Your task to perform on an android device: Go to privacy settings Image 0: 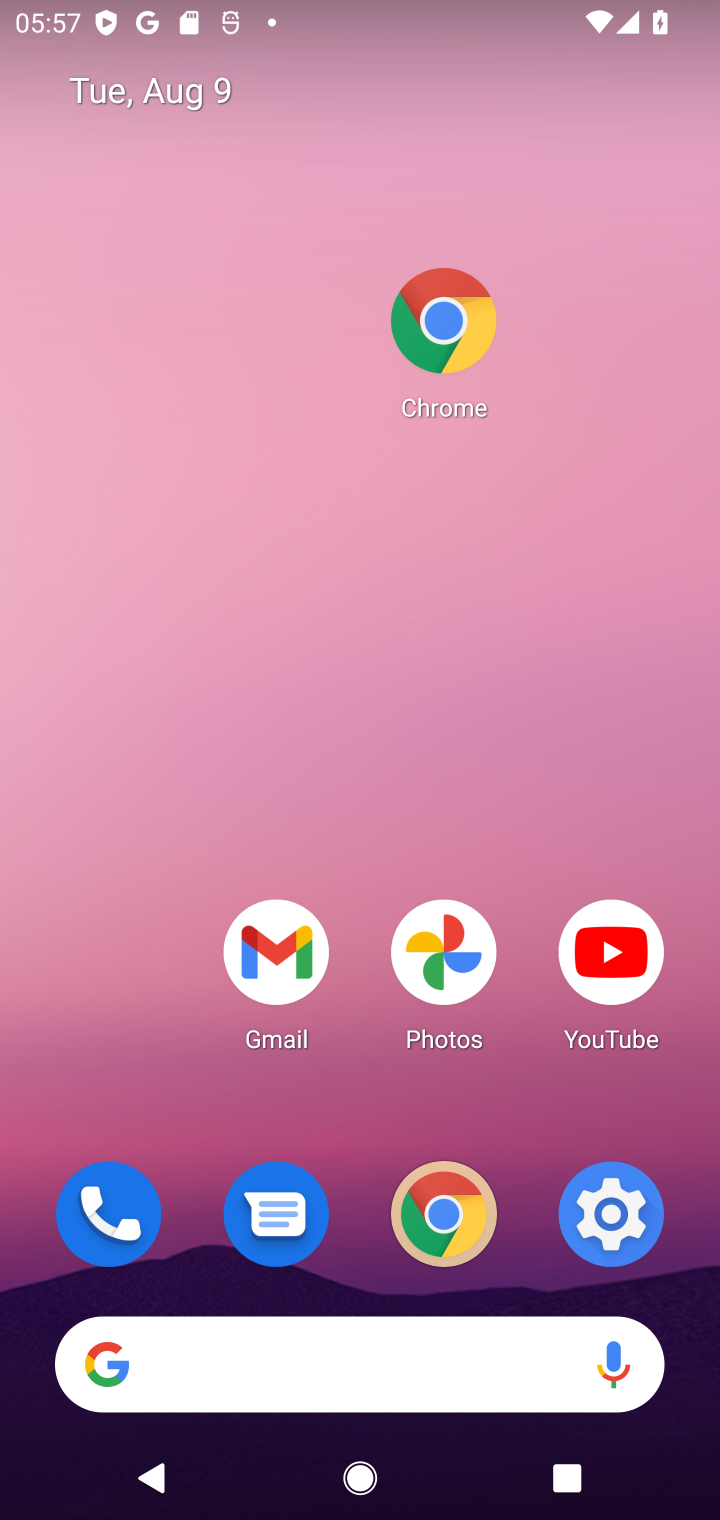
Step 0: press home button
Your task to perform on an android device: Go to privacy settings Image 1: 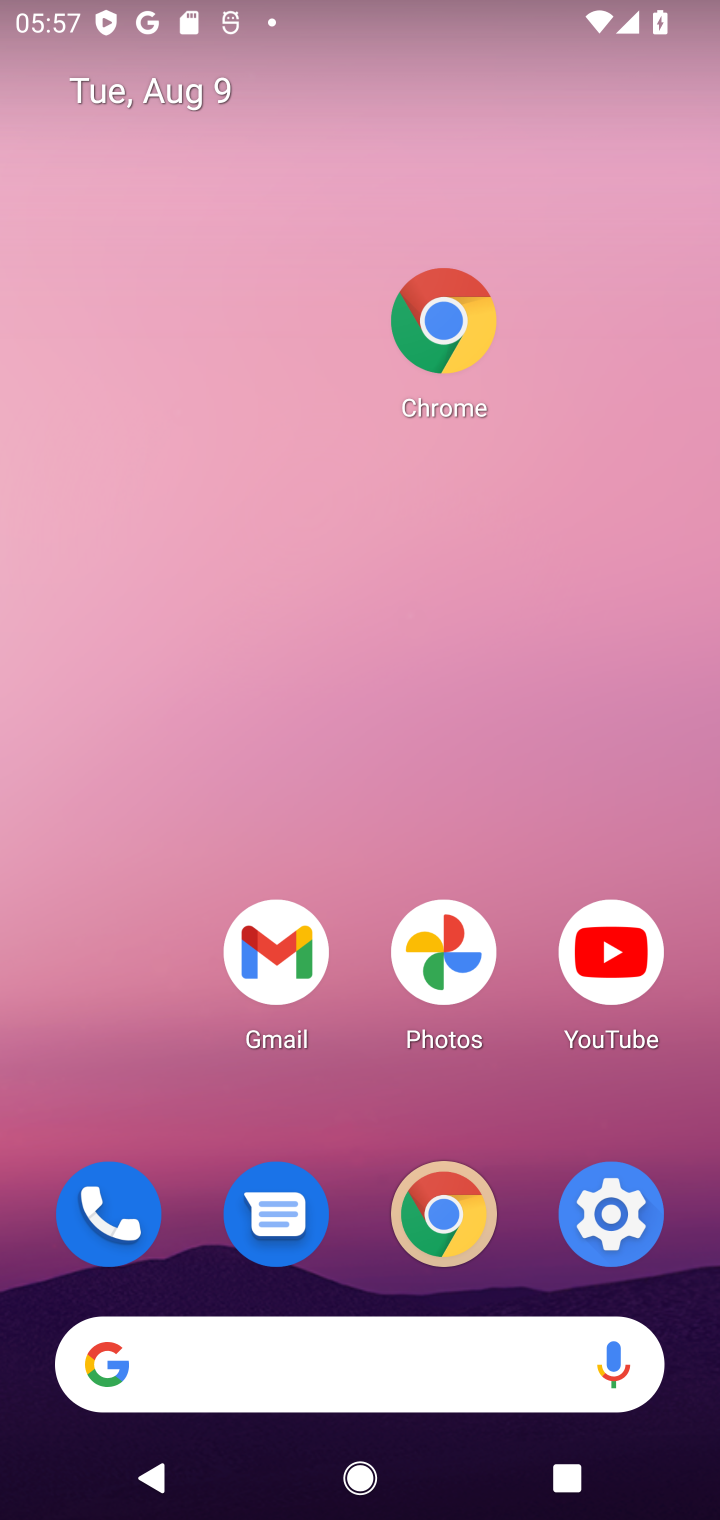
Step 1: click (607, 1179)
Your task to perform on an android device: Go to privacy settings Image 2: 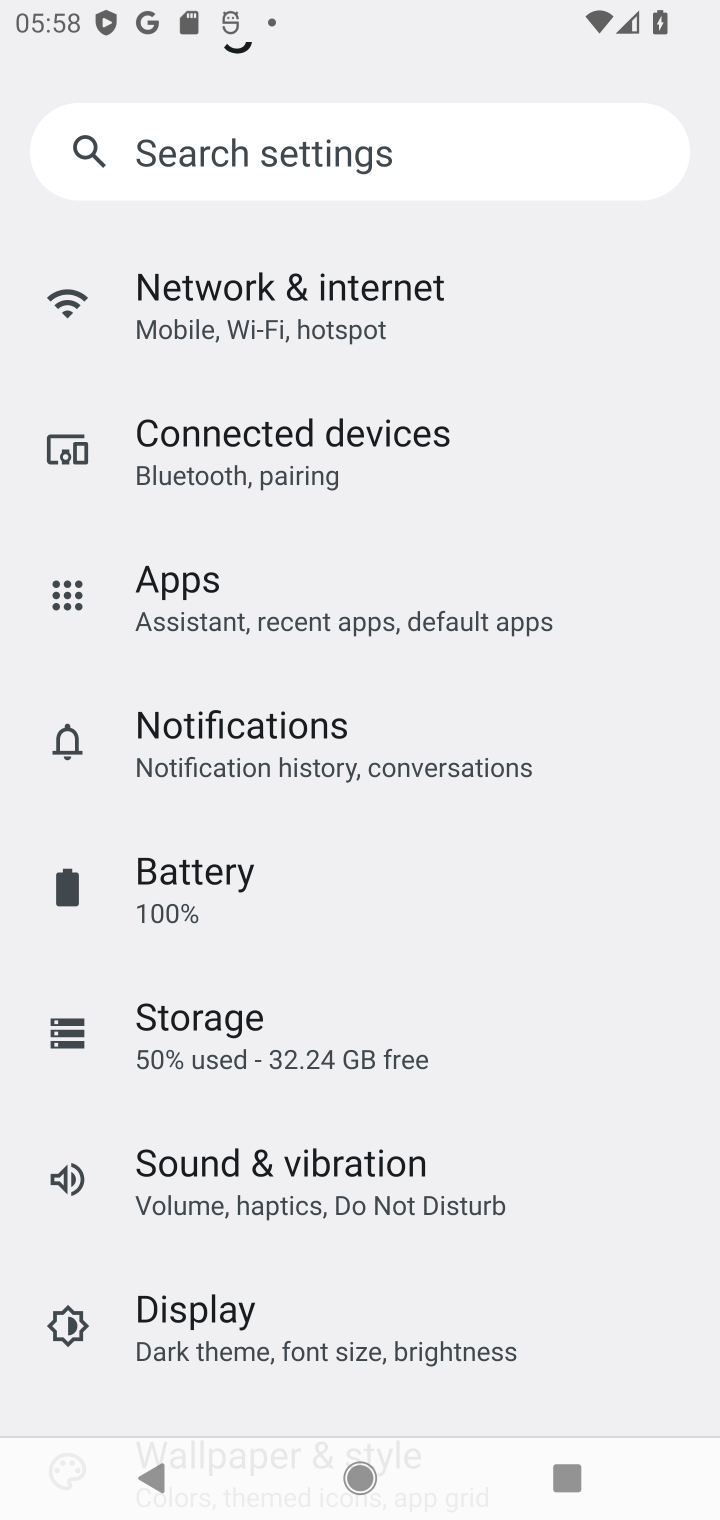
Step 2: click (252, 174)
Your task to perform on an android device: Go to privacy settings Image 3: 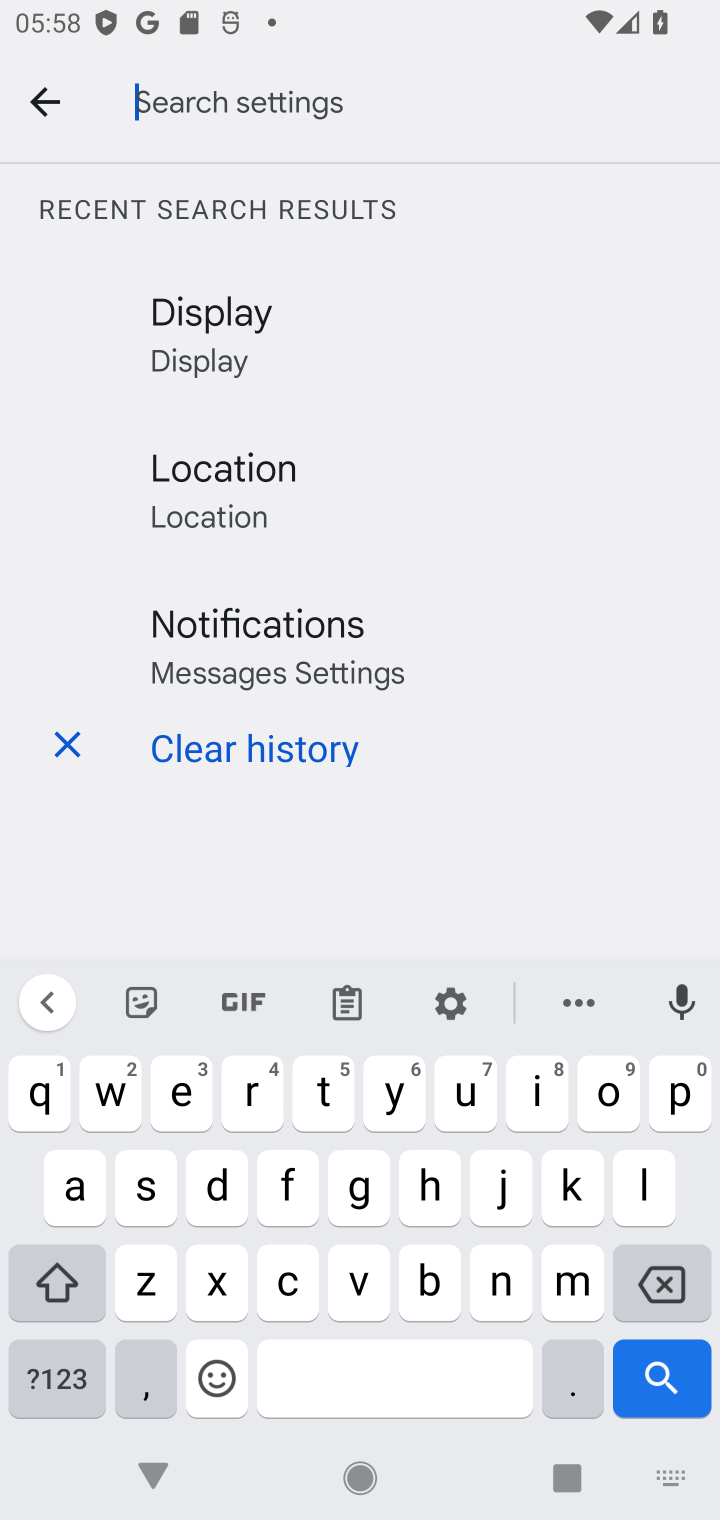
Step 3: click (678, 1096)
Your task to perform on an android device: Go to privacy settings Image 4: 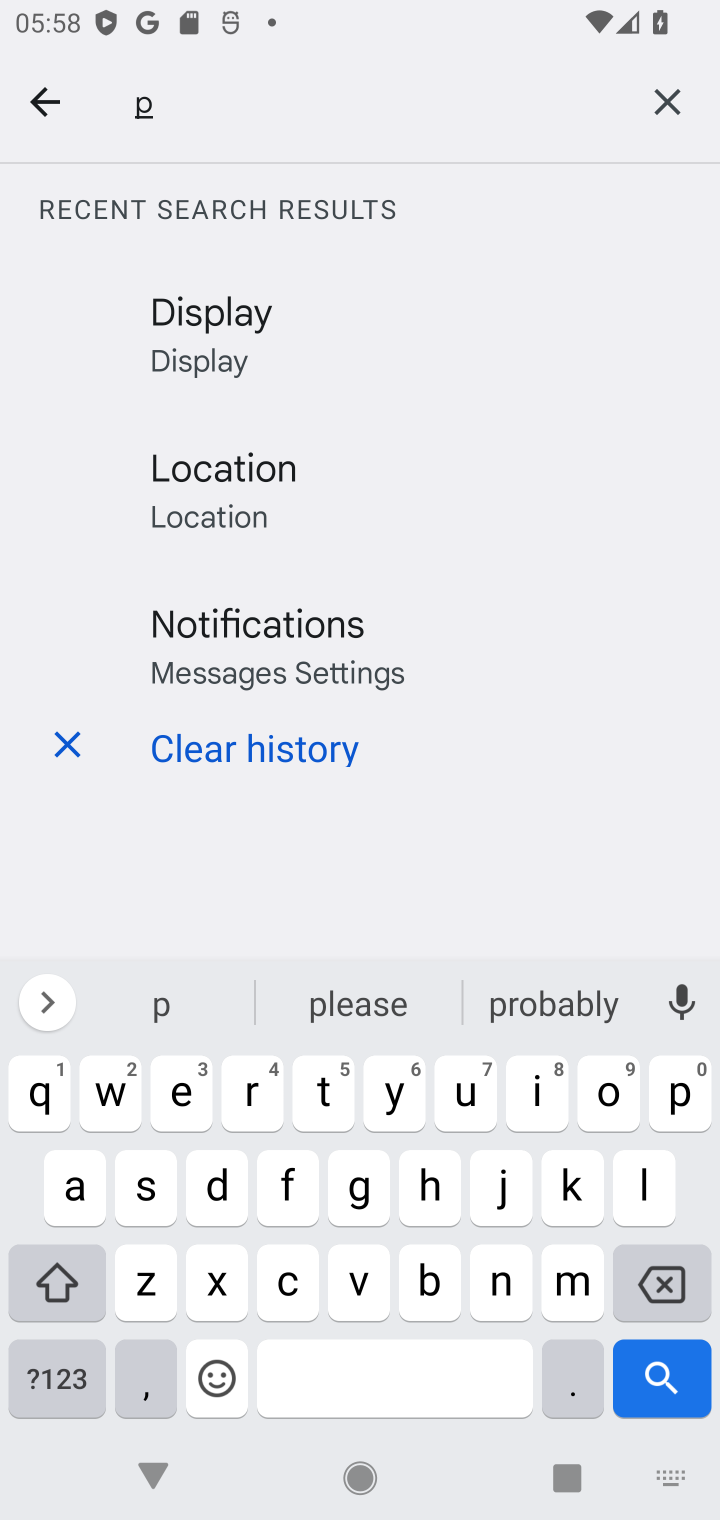
Step 4: click (234, 1093)
Your task to perform on an android device: Go to privacy settings Image 5: 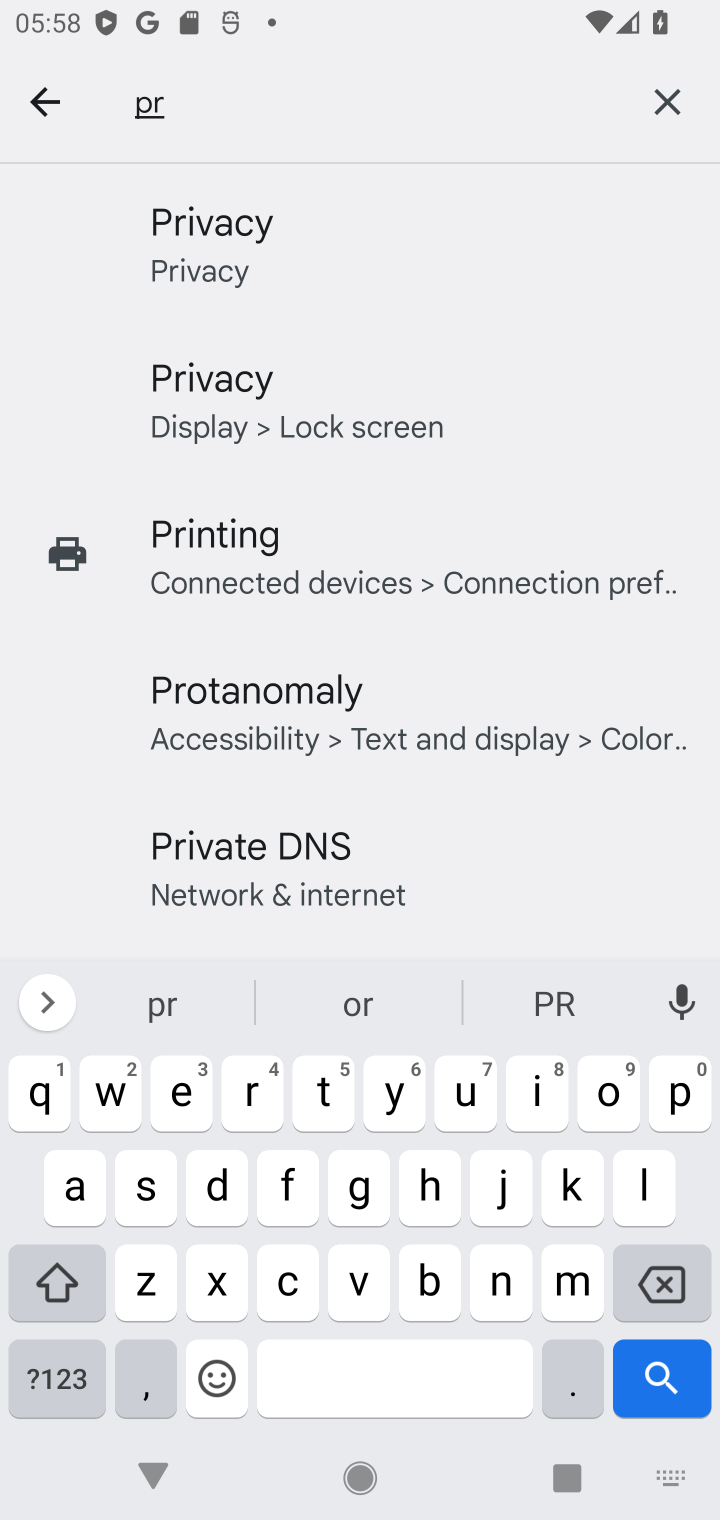
Step 5: click (282, 235)
Your task to perform on an android device: Go to privacy settings Image 6: 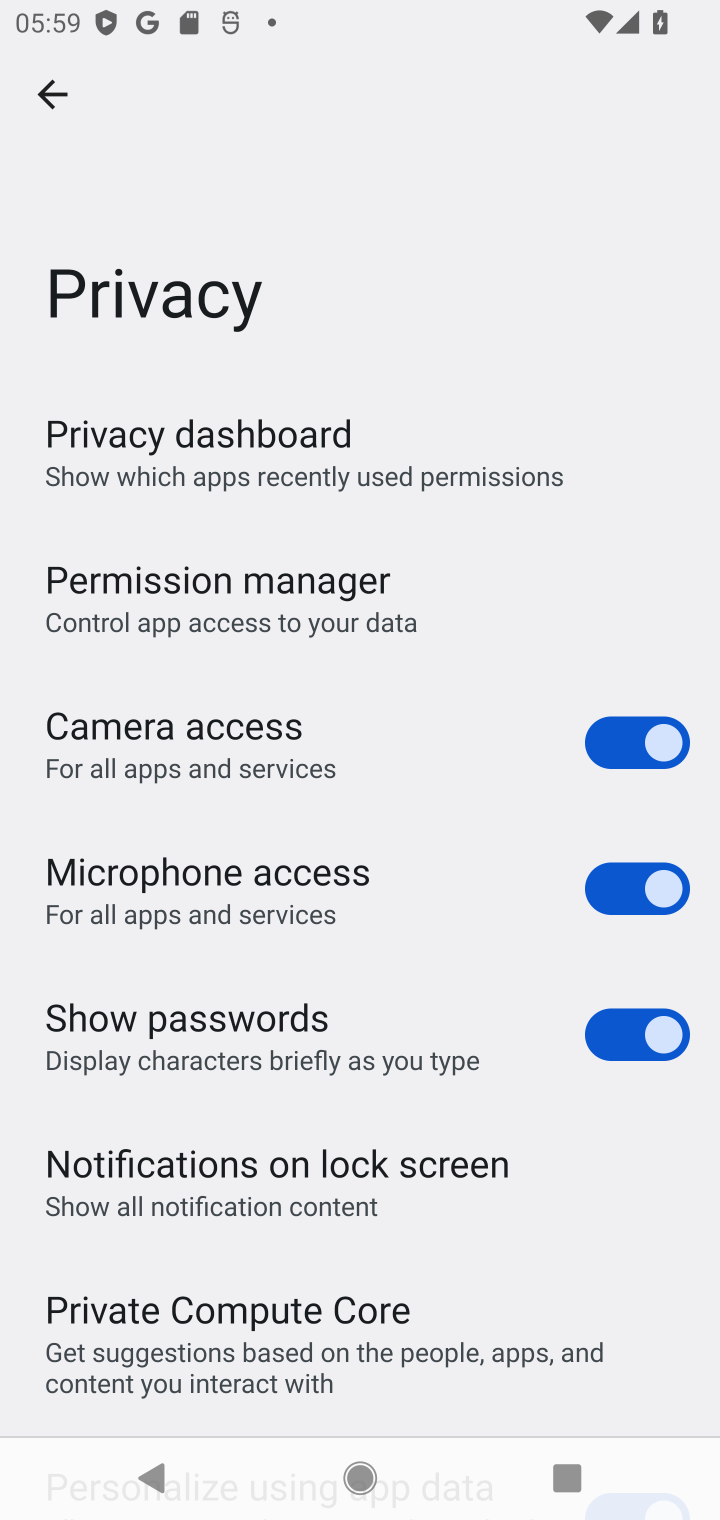
Step 6: task complete